Your task to perform on an android device: turn on sleep mode Image 0: 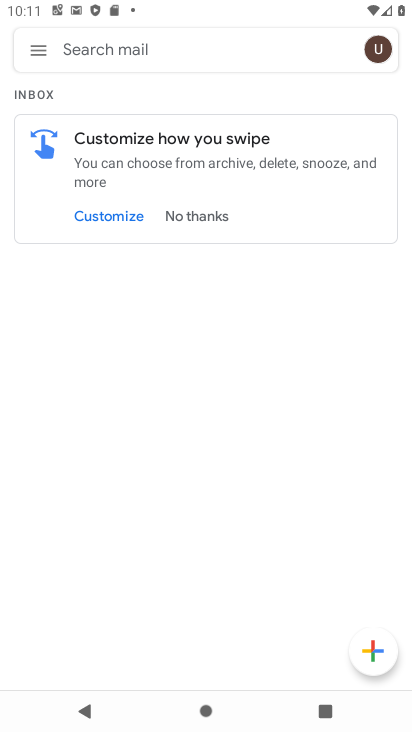
Step 0: press back button
Your task to perform on an android device: turn on sleep mode Image 1: 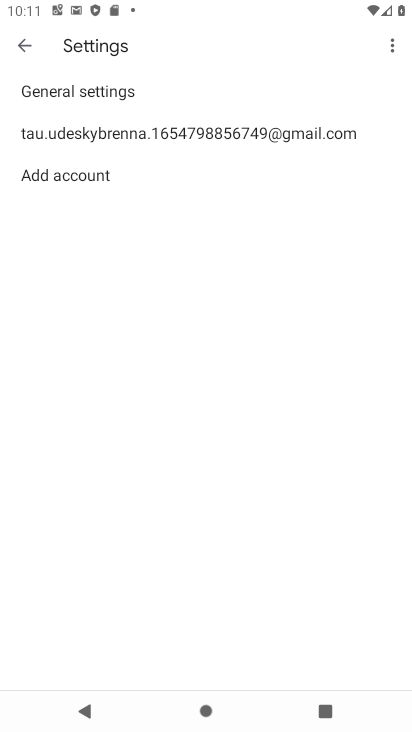
Step 1: press back button
Your task to perform on an android device: turn on sleep mode Image 2: 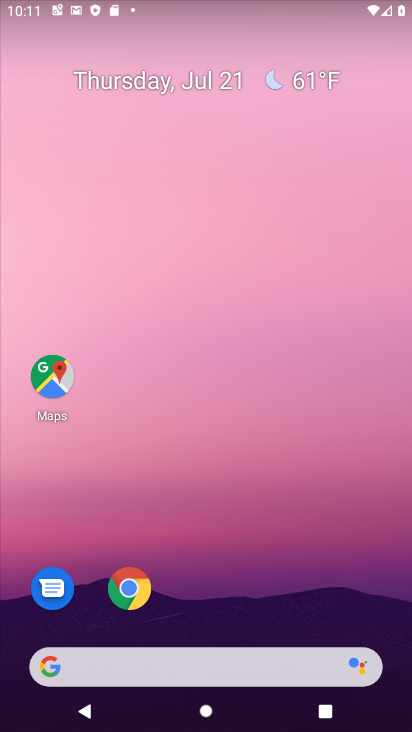
Step 2: drag from (268, 565) to (288, 3)
Your task to perform on an android device: turn on sleep mode Image 3: 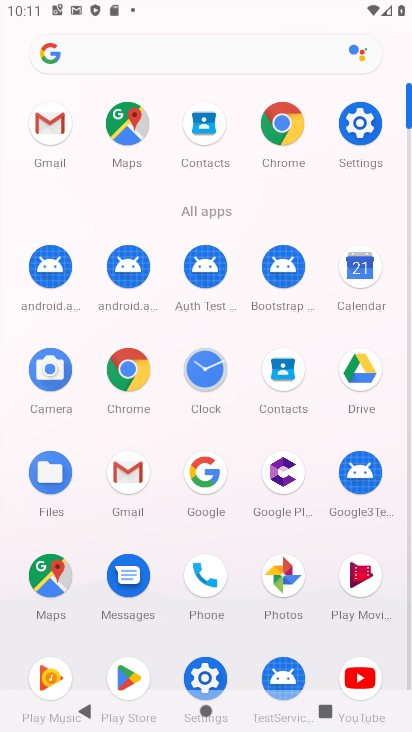
Step 3: click (366, 119)
Your task to perform on an android device: turn on sleep mode Image 4: 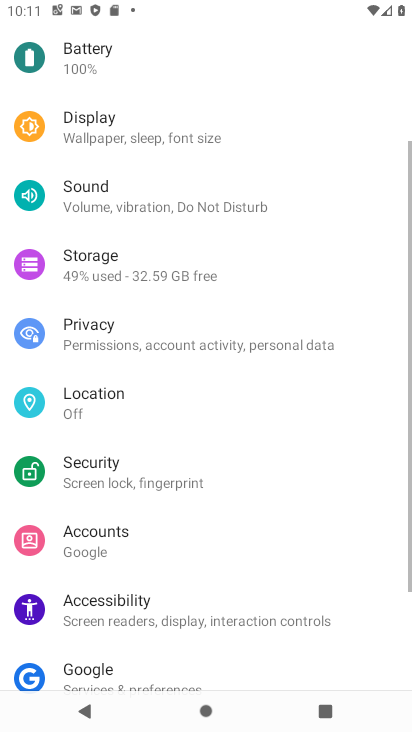
Step 4: drag from (203, 137) to (181, 629)
Your task to perform on an android device: turn on sleep mode Image 5: 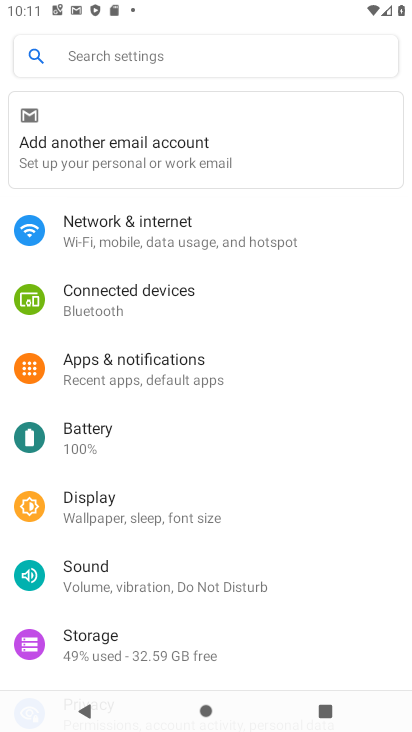
Step 5: click (124, 45)
Your task to perform on an android device: turn on sleep mode Image 6: 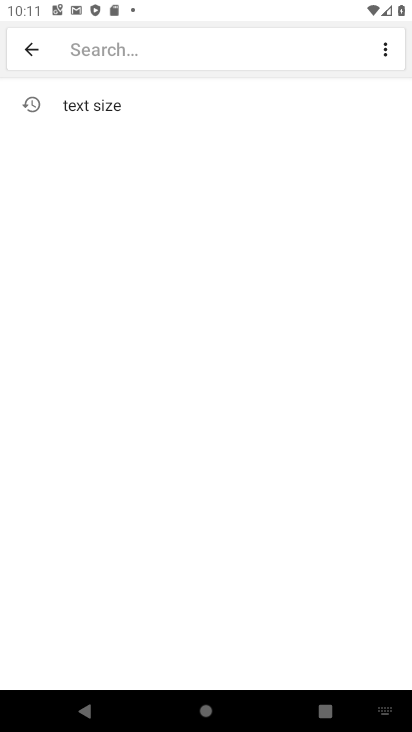
Step 6: type "sleep mode"
Your task to perform on an android device: turn on sleep mode Image 7: 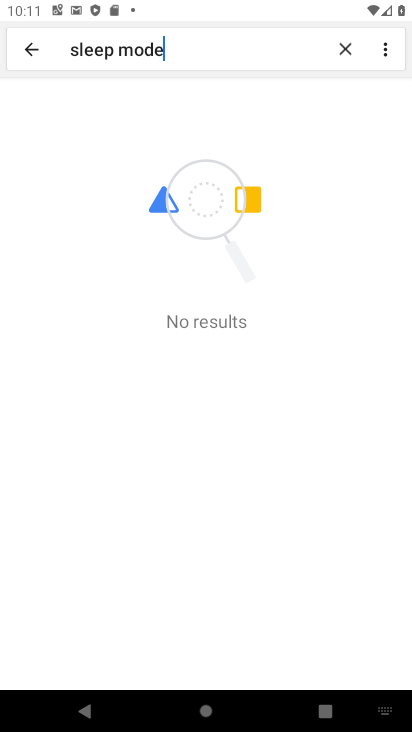
Step 7: task complete